Your task to perform on an android device: open a bookmark in the chrome app Image 0: 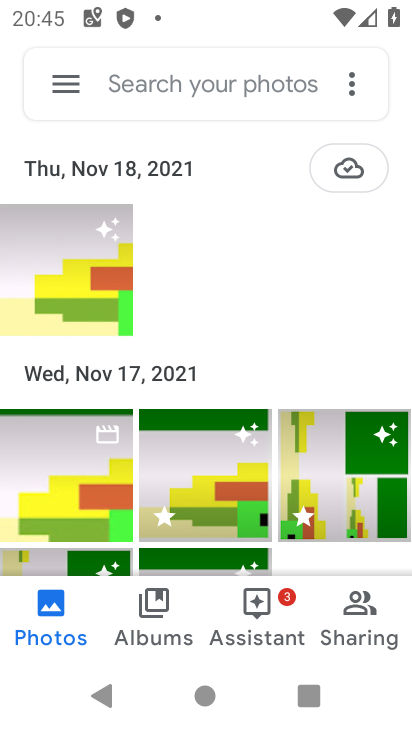
Step 0: press home button
Your task to perform on an android device: open a bookmark in the chrome app Image 1: 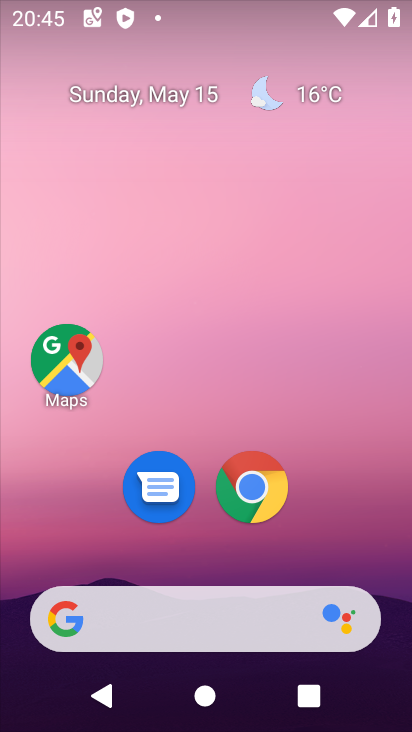
Step 1: click (250, 482)
Your task to perform on an android device: open a bookmark in the chrome app Image 2: 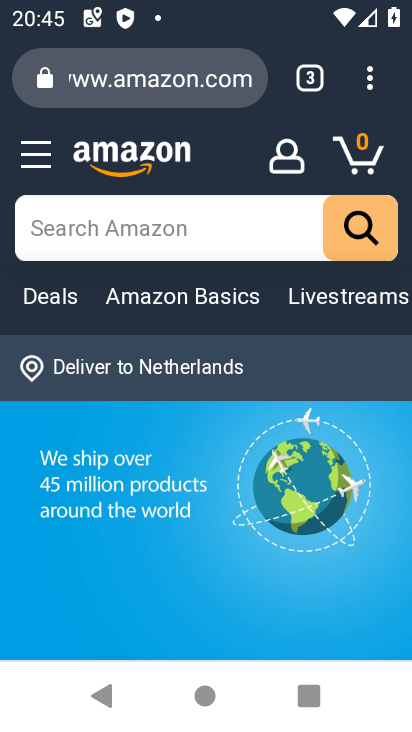
Step 2: click (369, 74)
Your task to perform on an android device: open a bookmark in the chrome app Image 3: 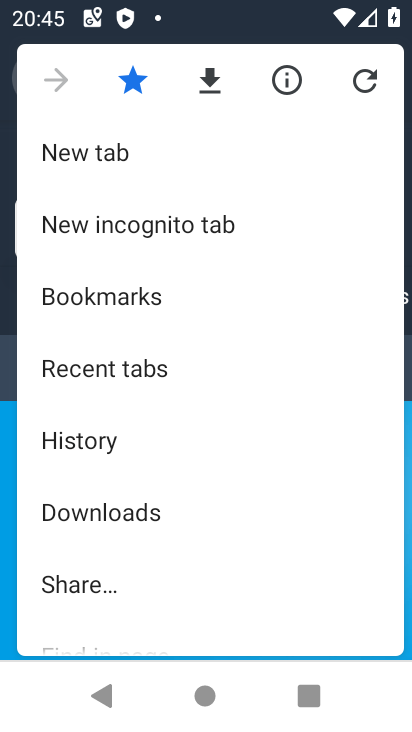
Step 3: click (111, 299)
Your task to perform on an android device: open a bookmark in the chrome app Image 4: 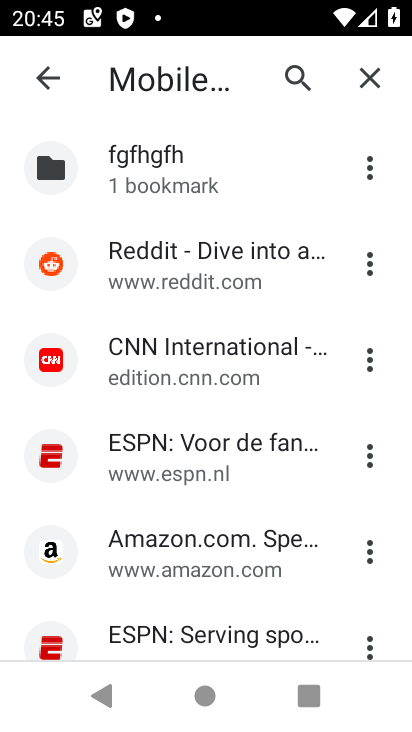
Step 4: click (152, 257)
Your task to perform on an android device: open a bookmark in the chrome app Image 5: 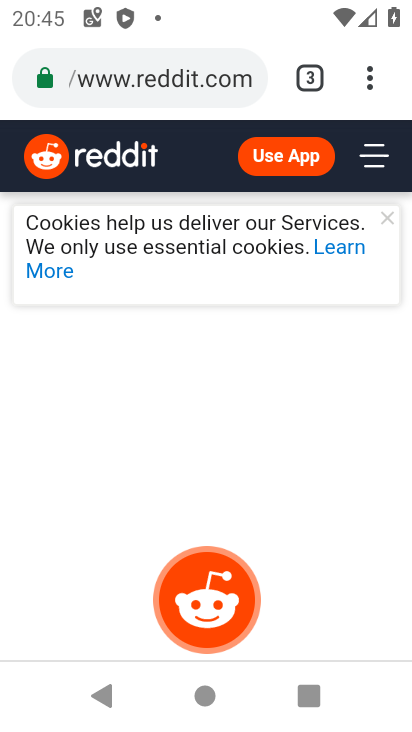
Step 5: task complete